Your task to perform on an android device: What's the weather going to be tomorrow? Image 0: 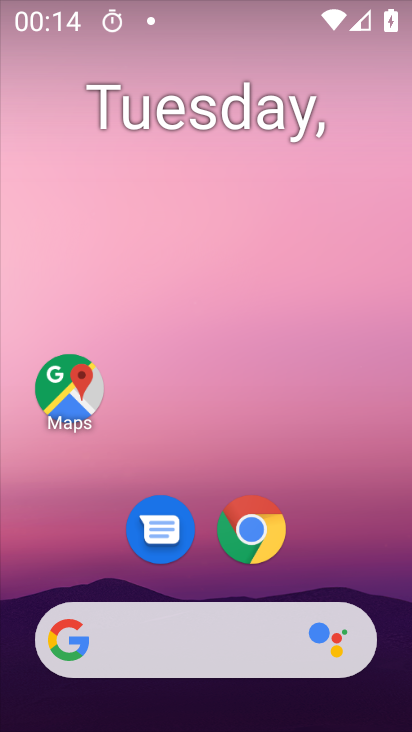
Step 0: click (246, 566)
Your task to perform on an android device: What's the weather going to be tomorrow? Image 1: 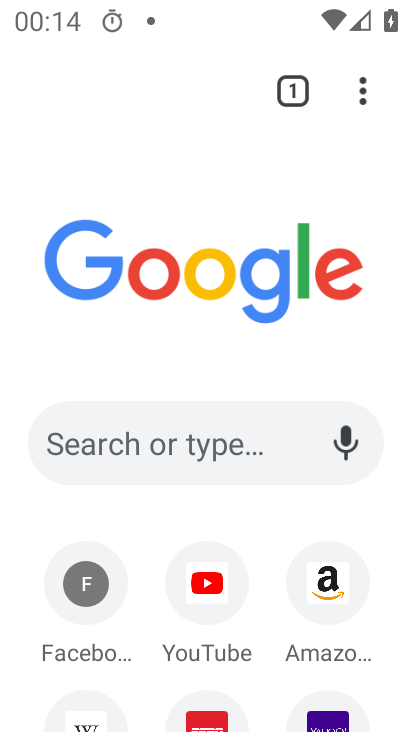
Step 1: click (236, 454)
Your task to perform on an android device: What's the weather going to be tomorrow? Image 2: 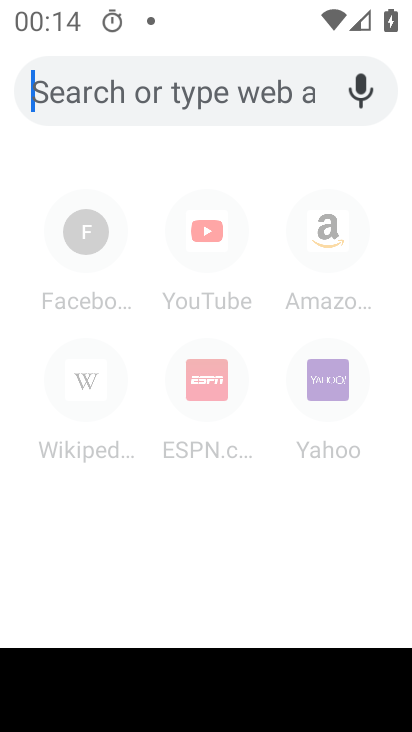
Step 2: type "What's the weather going to be tomorrow?"
Your task to perform on an android device: What's the weather going to be tomorrow? Image 3: 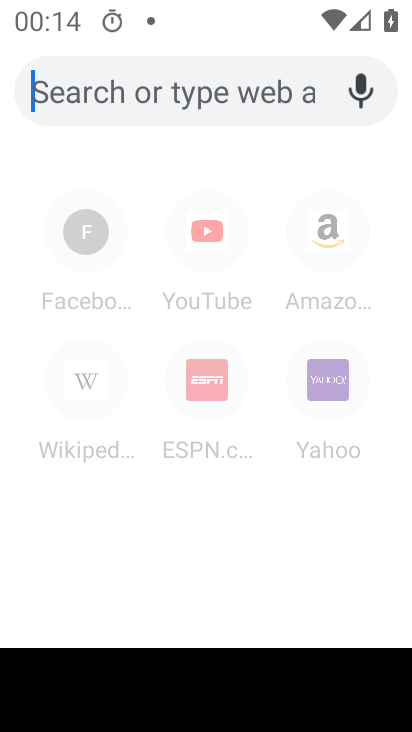
Step 3: click (258, 175)
Your task to perform on an android device: What's the weather going to be tomorrow? Image 4: 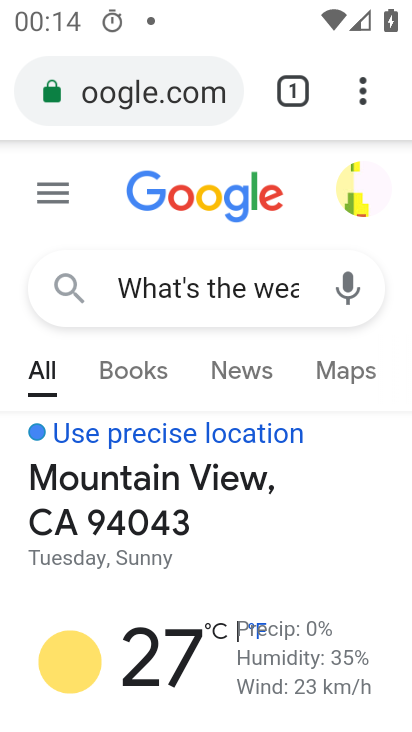
Step 4: task complete